Your task to perform on an android device: turn off airplane mode Image 0: 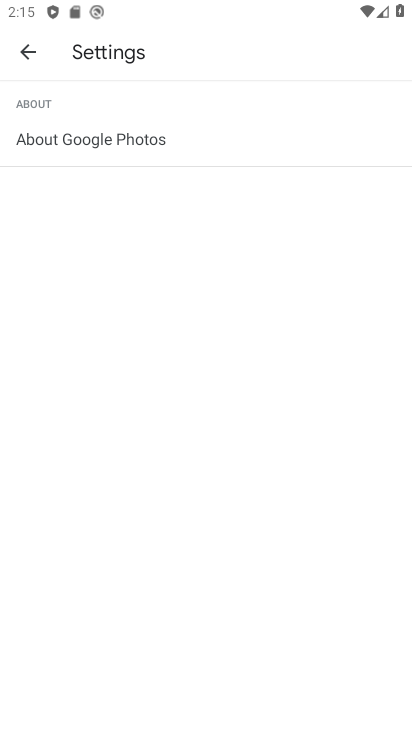
Step 0: click (354, 301)
Your task to perform on an android device: turn off airplane mode Image 1: 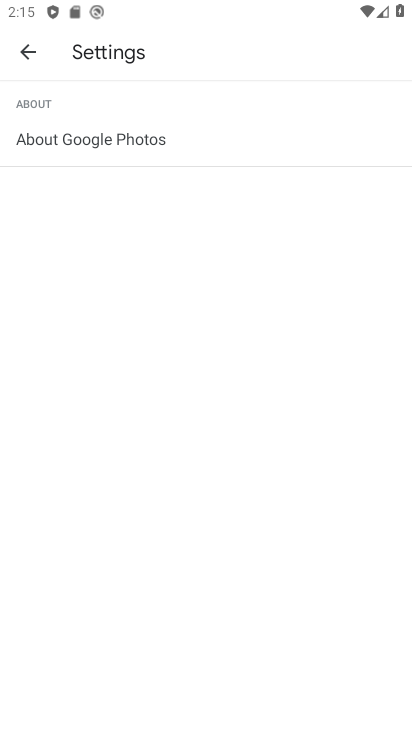
Step 1: press home button
Your task to perform on an android device: turn off airplane mode Image 2: 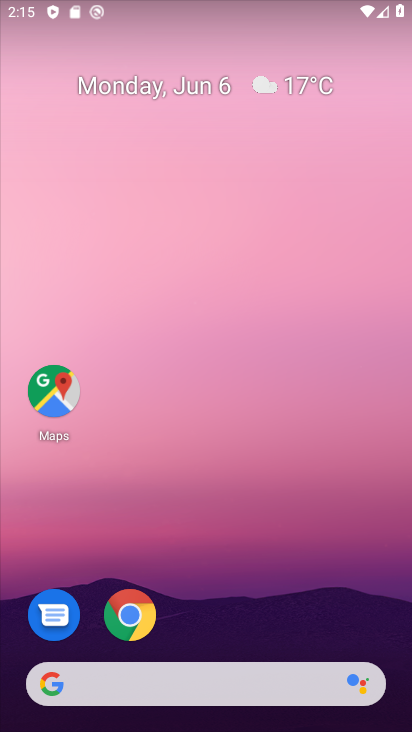
Step 2: drag from (206, 638) to (235, 3)
Your task to perform on an android device: turn off airplane mode Image 3: 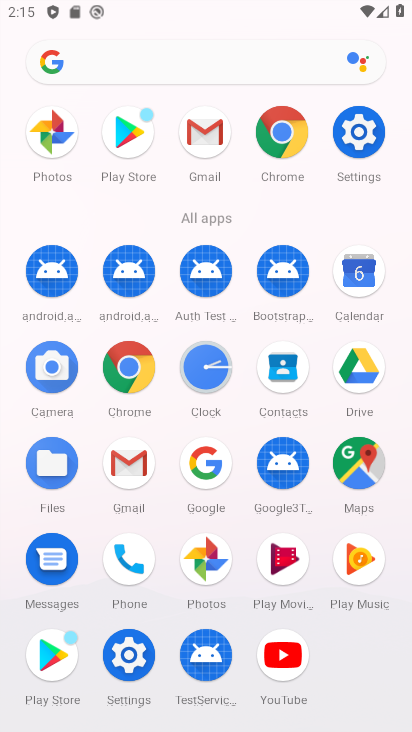
Step 3: click (370, 159)
Your task to perform on an android device: turn off airplane mode Image 4: 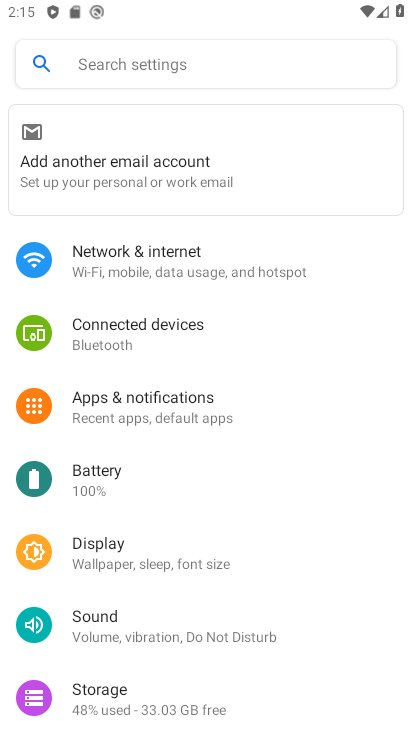
Step 4: click (188, 275)
Your task to perform on an android device: turn off airplane mode Image 5: 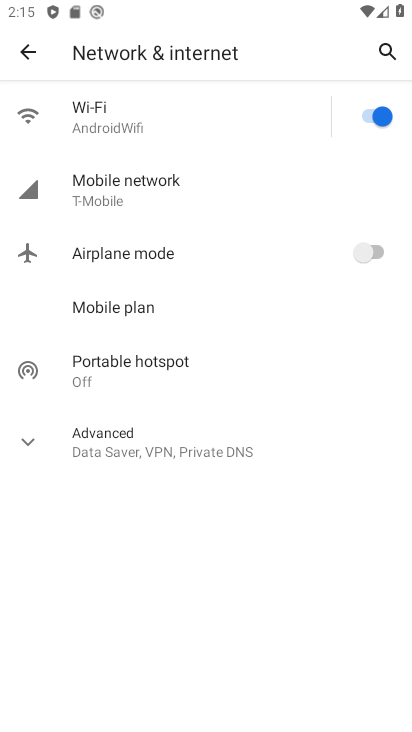
Step 5: task complete